Your task to perform on an android device: Open Google Chrome and open the bookmarks view Image 0: 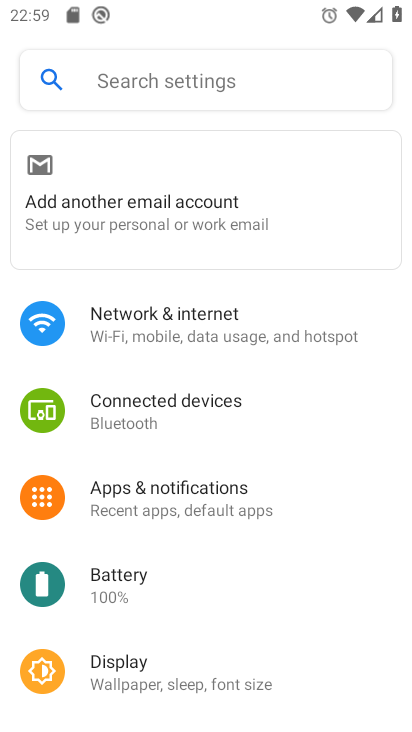
Step 0: press home button
Your task to perform on an android device: Open Google Chrome and open the bookmarks view Image 1: 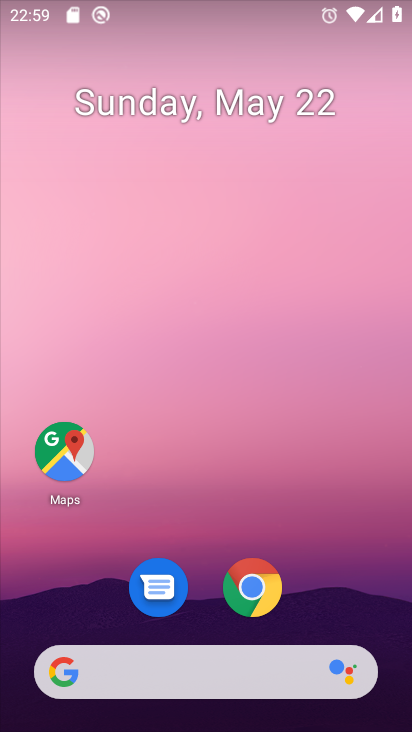
Step 1: click (257, 594)
Your task to perform on an android device: Open Google Chrome and open the bookmarks view Image 2: 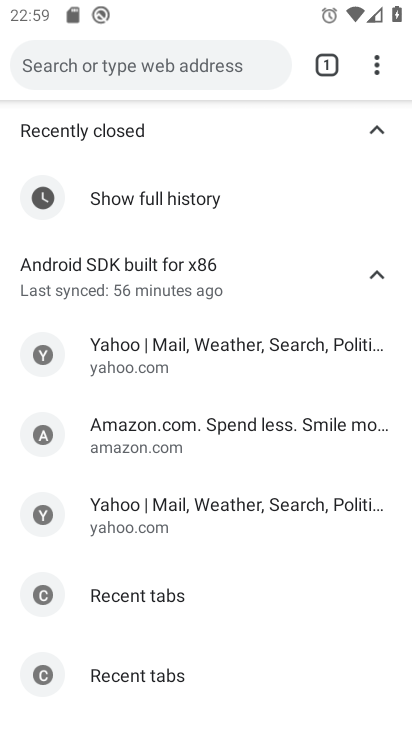
Step 2: click (374, 61)
Your task to perform on an android device: Open Google Chrome and open the bookmarks view Image 3: 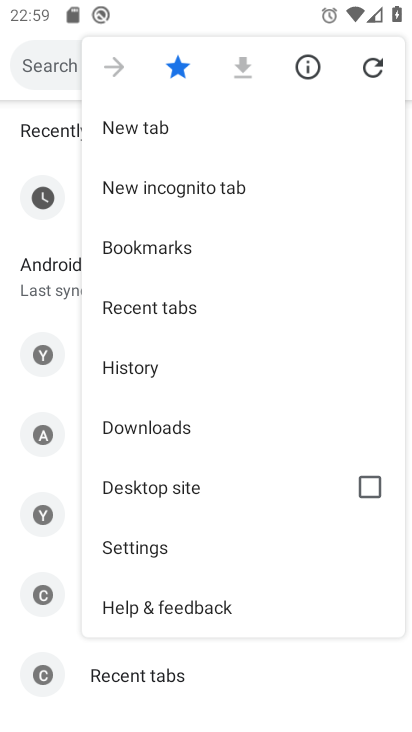
Step 3: click (176, 250)
Your task to perform on an android device: Open Google Chrome and open the bookmarks view Image 4: 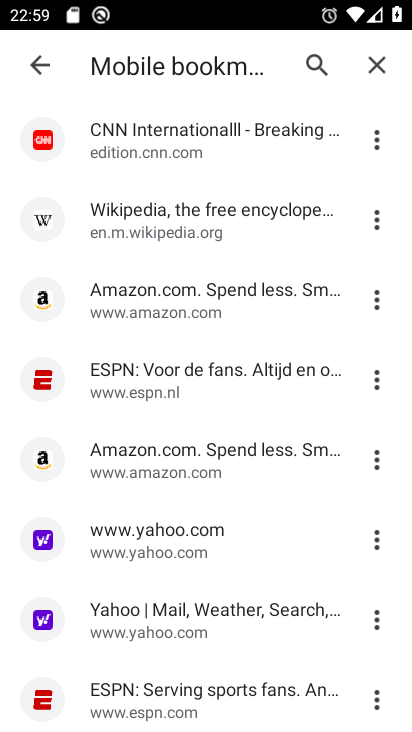
Step 4: task complete